Your task to perform on an android device: Do I have any events tomorrow? Image 0: 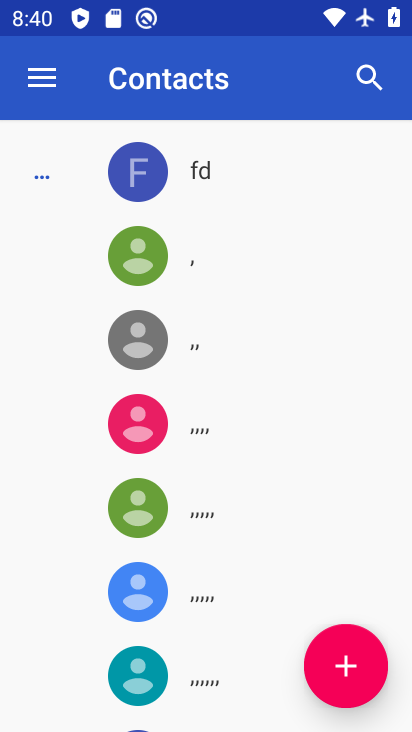
Step 0: press home button
Your task to perform on an android device: Do I have any events tomorrow? Image 1: 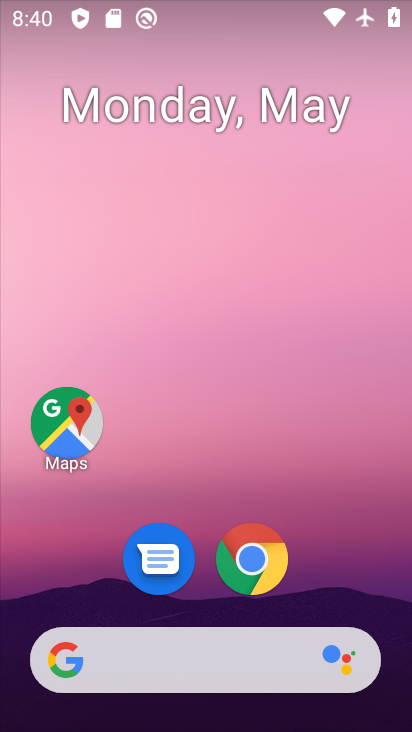
Step 1: drag from (305, 590) to (325, 162)
Your task to perform on an android device: Do I have any events tomorrow? Image 2: 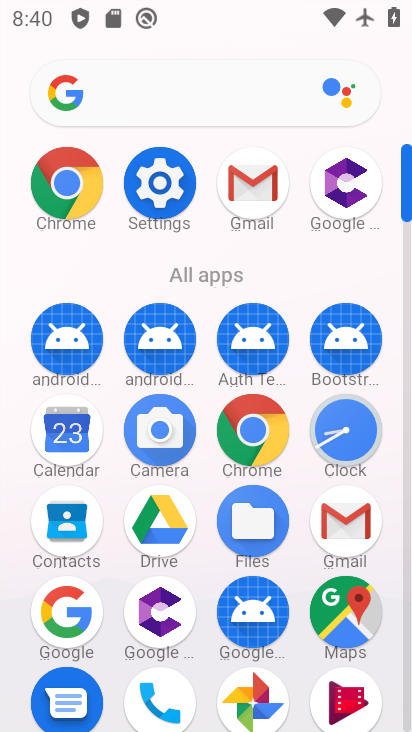
Step 2: click (51, 427)
Your task to perform on an android device: Do I have any events tomorrow? Image 3: 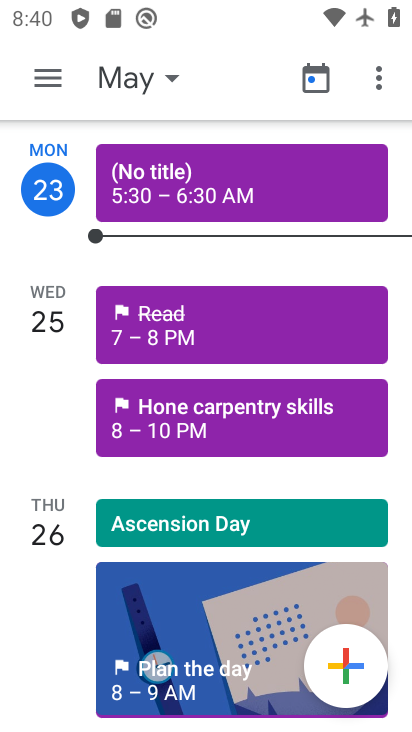
Step 3: click (130, 79)
Your task to perform on an android device: Do I have any events tomorrow? Image 4: 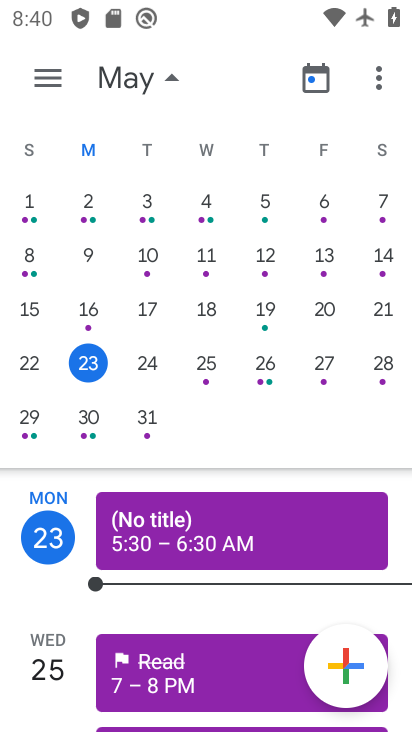
Step 4: click (148, 360)
Your task to perform on an android device: Do I have any events tomorrow? Image 5: 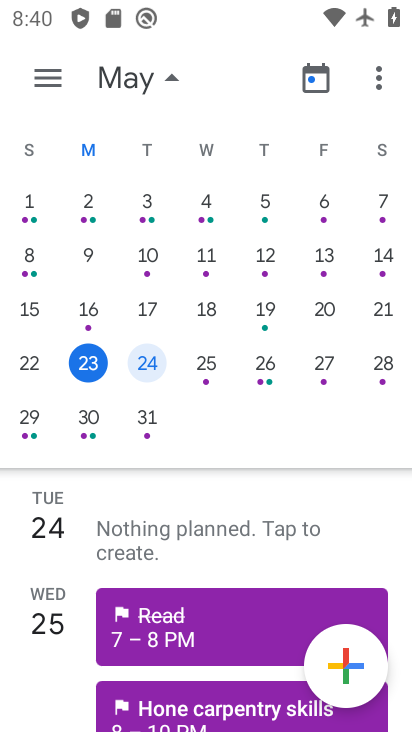
Step 5: task complete